Your task to perform on an android device: Open calendar and show me the second week of next month Image 0: 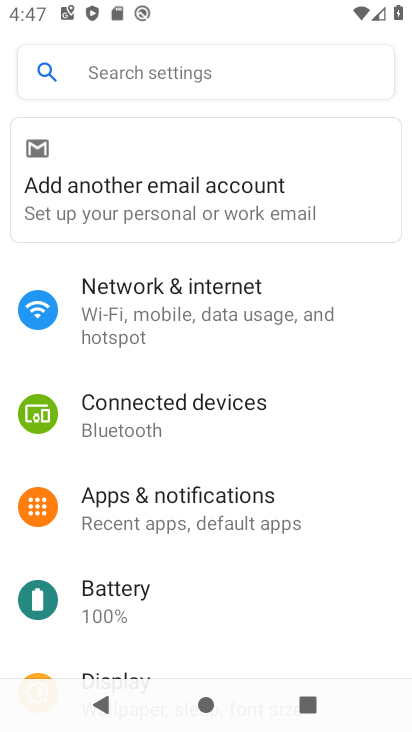
Step 0: press home button
Your task to perform on an android device: Open calendar and show me the second week of next month Image 1: 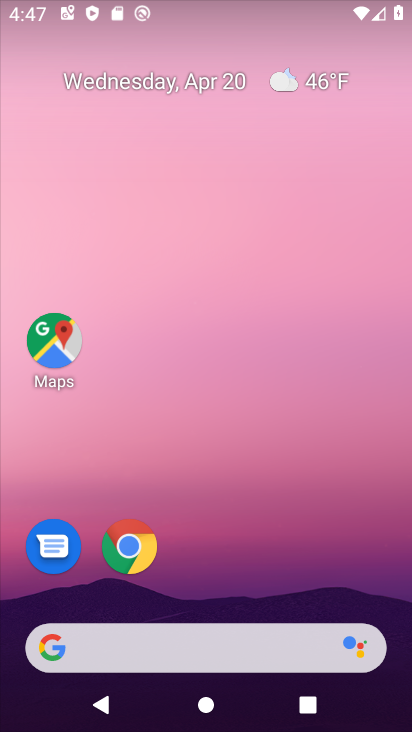
Step 1: drag from (335, 548) to (327, 83)
Your task to perform on an android device: Open calendar and show me the second week of next month Image 2: 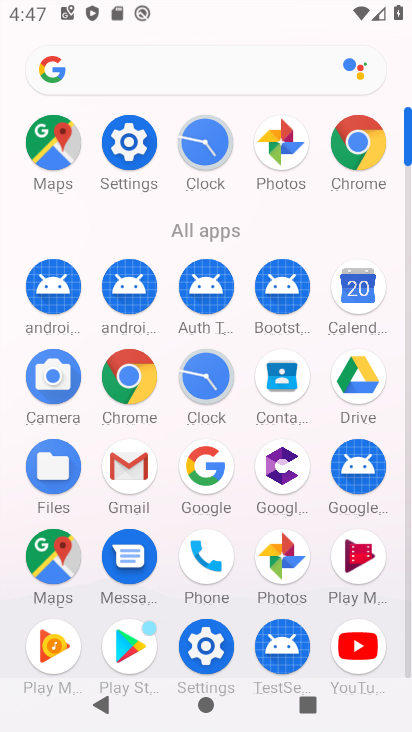
Step 2: click (366, 297)
Your task to perform on an android device: Open calendar and show me the second week of next month Image 3: 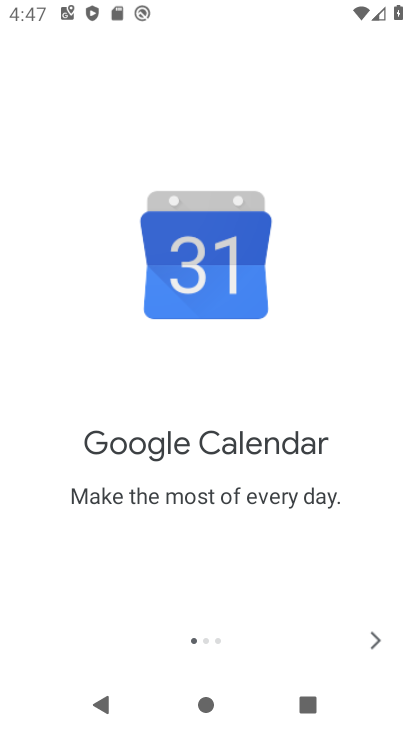
Step 3: click (388, 644)
Your task to perform on an android device: Open calendar and show me the second week of next month Image 4: 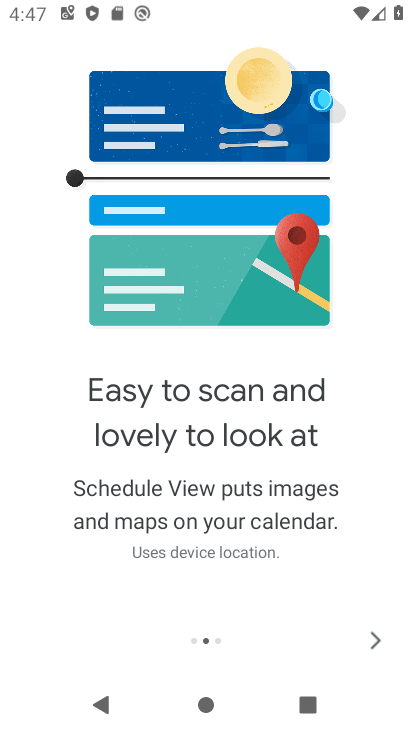
Step 4: click (375, 634)
Your task to perform on an android device: Open calendar and show me the second week of next month Image 5: 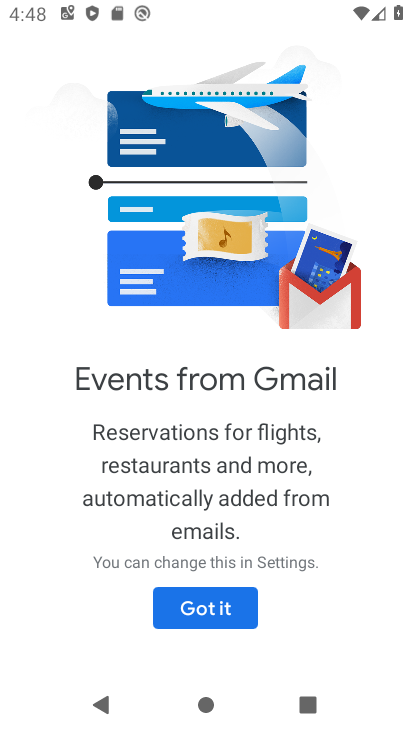
Step 5: click (169, 607)
Your task to perform on an android device: Open calendar and show me the second week of next month Image 6: 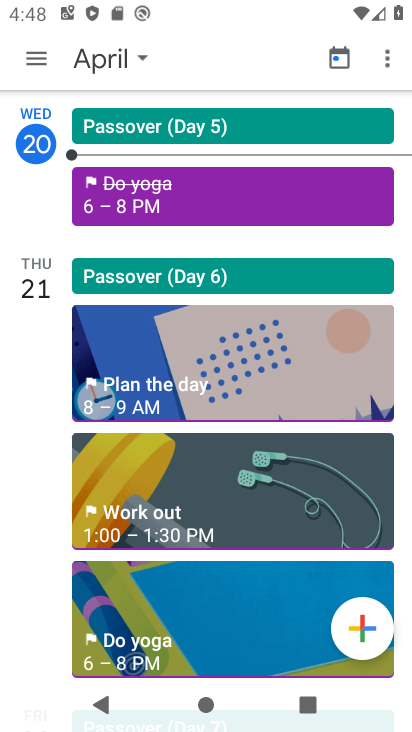
Step 6: click (120, 67)
Your task to perform on an android device: Open calendar and show me the second week of next month Image 7: 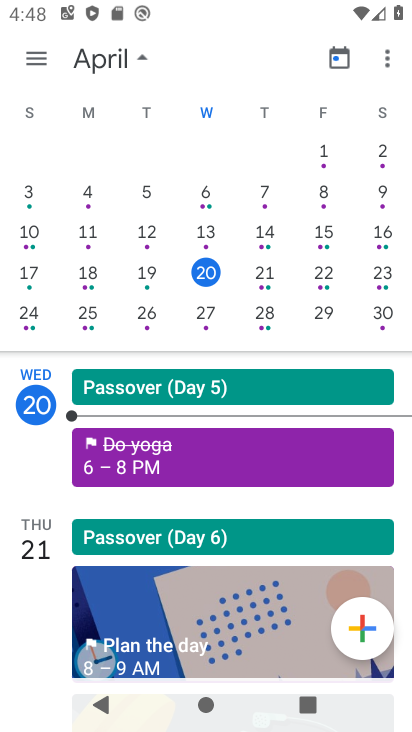
Step 7: drag from (363, 241) to (21, 264)
Your task to perform on an android device: Open calendar and show me the second week of next month Image 8: 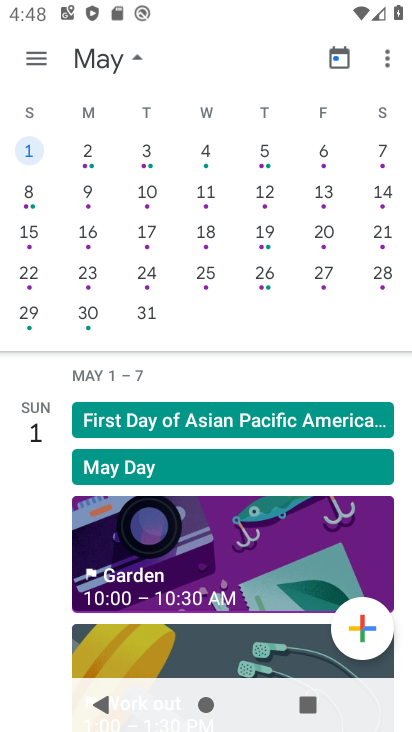
Step 8: click (325, 145)
Your task to perform on an android device: Open calendar and show me the second week of next month Image 9: 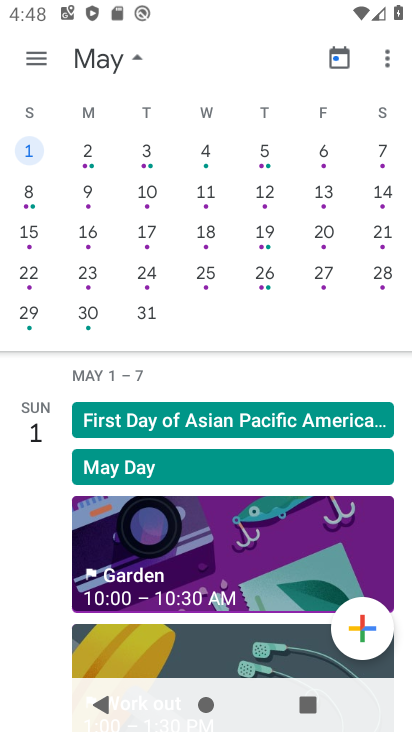
Step 9: click (322, 157)
Your task to perform on an android device: Open calendar and show me the second week of next month Image 10: 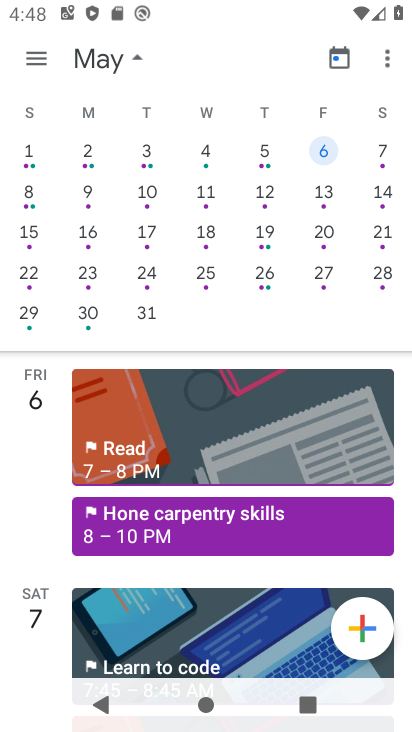
Step 10: task complete